Your task to perform on an android device: turn on javascript in the chrome app Image 0: 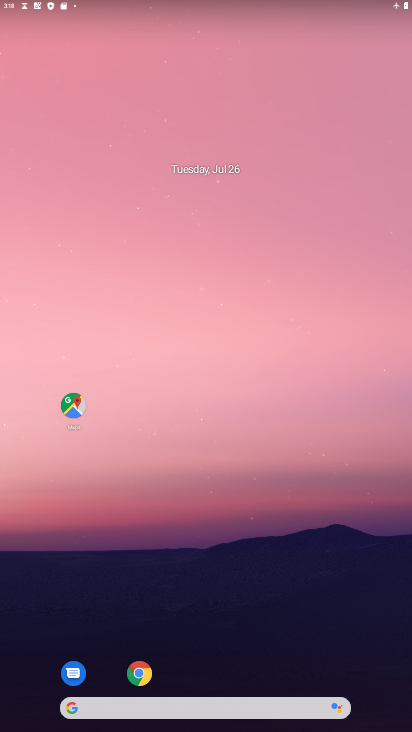
Step 0: click (140, 673)
Your task to perform on an android device: turn on javascript in the chrome app Image 1: 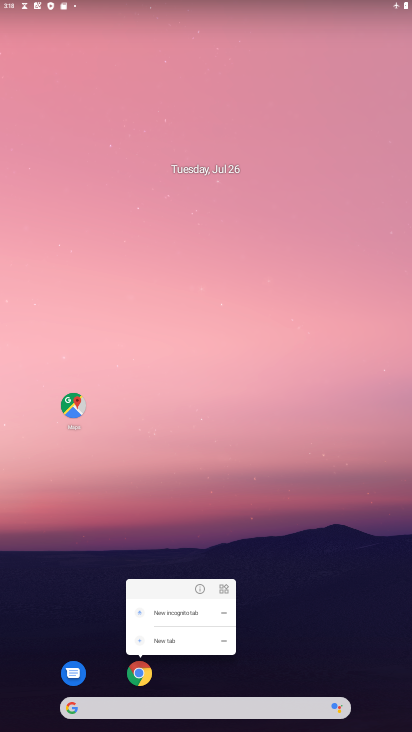
Step 1: click (140, 673)
Your task to perform on an android device: turn on javascript in the chrome app Image 2: 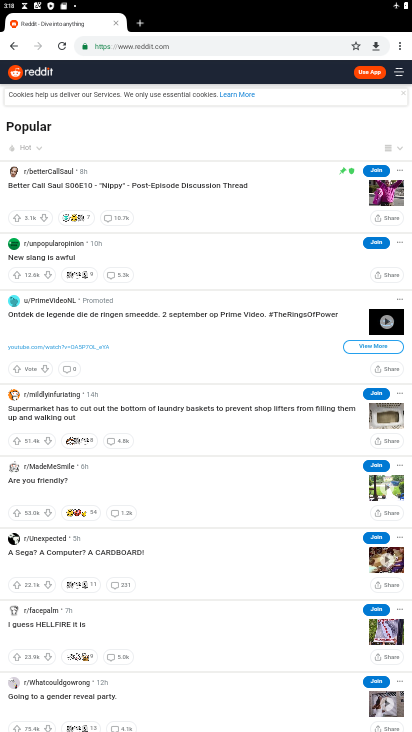
Step 2: click (401, 46)
Your task to perform on an android device: turn on javascript in the chrome app Image 3: 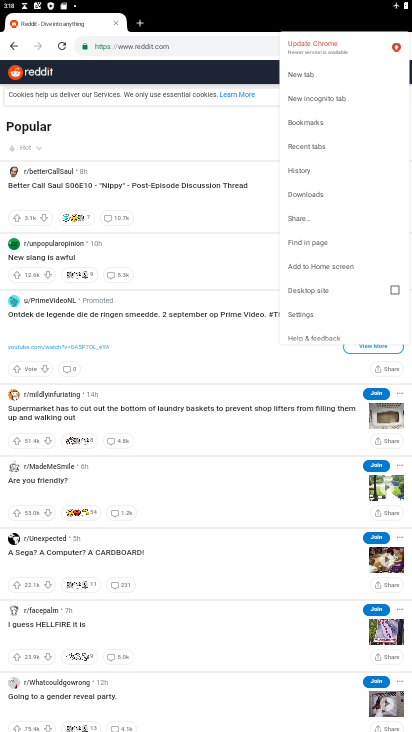
Step 3: click (304, 314)
Your task to perform on an android device: turn on javascript in the chrome app Image 4: 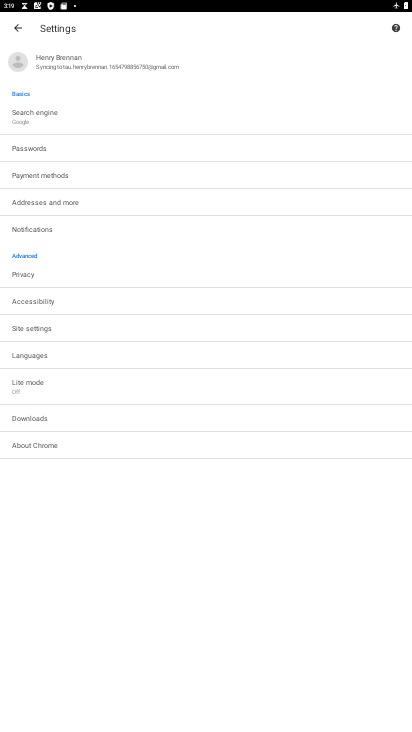
Step 4: click (40, 328)
Your task to perform on an android device: turn on javascript in the chrome app Image 5: 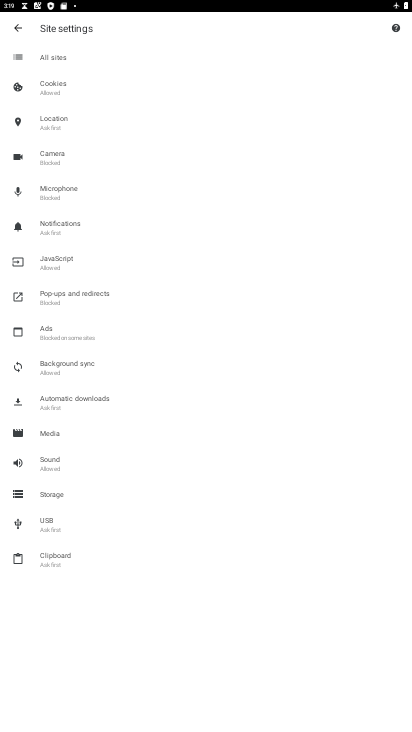
Step 5: click (58, 261)
Your task to perform on an android device: turn on javascript in the chrome app Image 6: 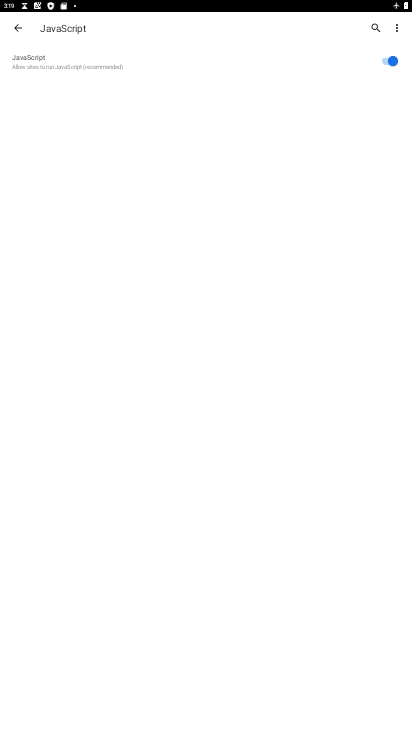
Step 6: task complete